Your task to perform on an android device: change notifications settings Image 0: 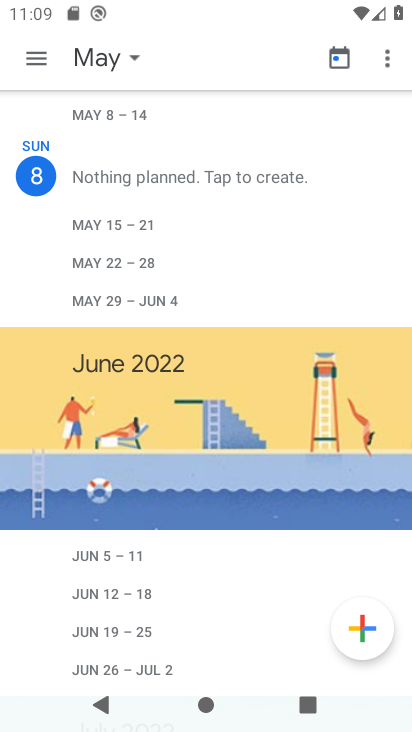
Step 0: press home button
Your task to perform on an android device: change notifications settings Image 1: 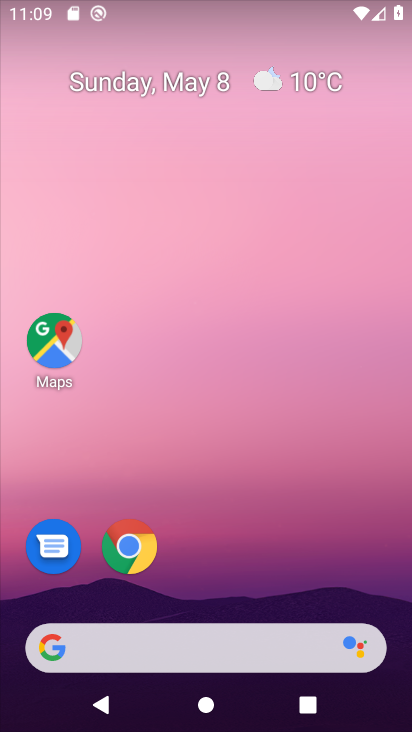
Step 1: drag from (255, 557) to (312, 280)
Your task to perform on an android device: change notifications settings Image 2: 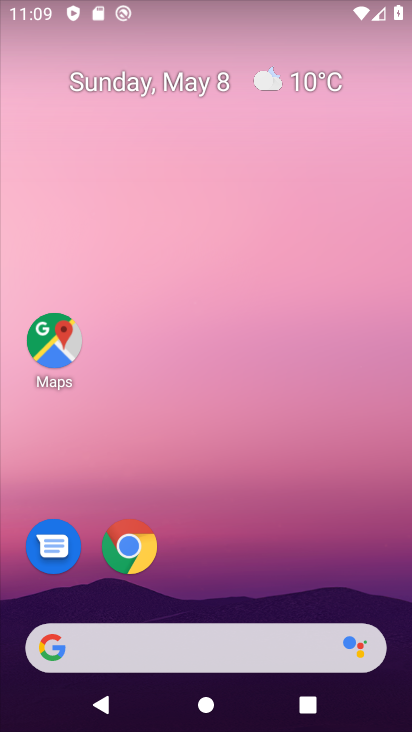
Step 2: drag from (238, 614) to (302, 365)
Your task to perform on an android device: change notifications settings Image 3: 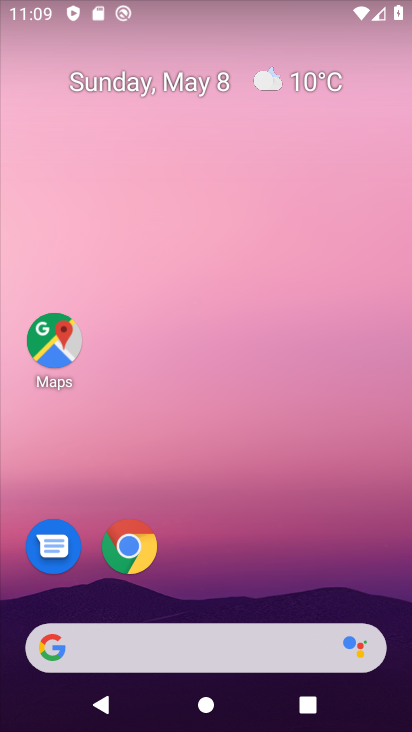
Step 3: drag from (207, 608) to (336, 215)
Your task to perform on an android device: change notifications settings Image 4: 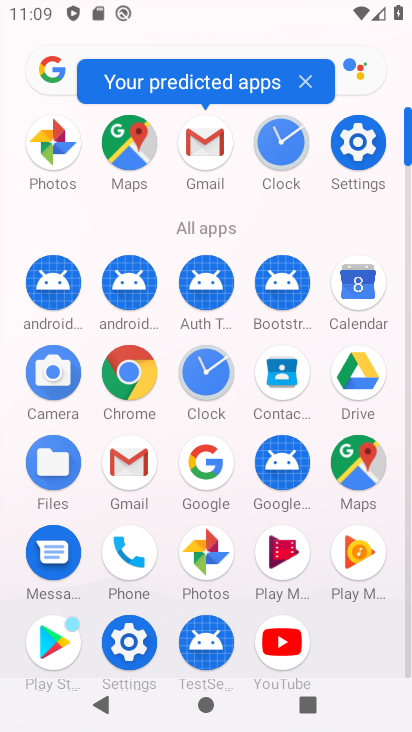
Step 4: click (365, 139)
Your task to perform on an android device: change notifications settings Image 5: 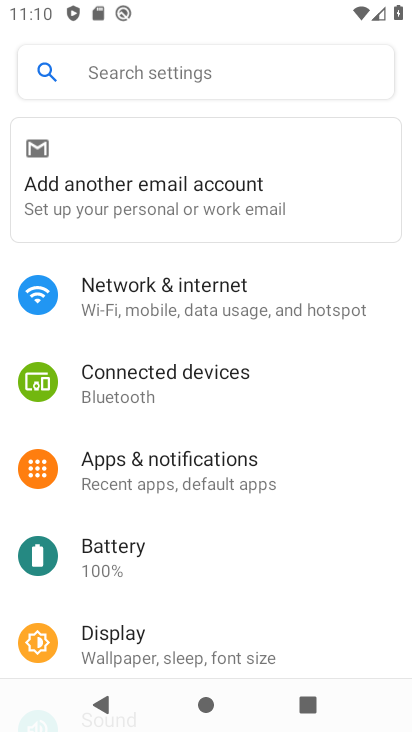
Step 5: click (269, 487)
Your task to perform on an android device: change notifications settings Image 6: 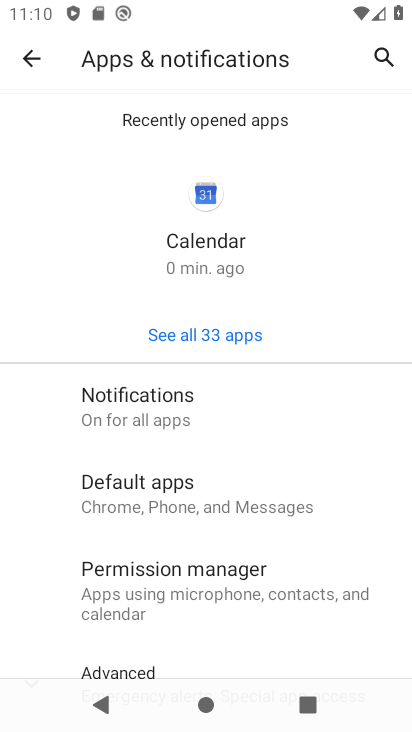
Step 6: click (246, 423)
Your task to perform on an android device: change notifications settings Image 7: 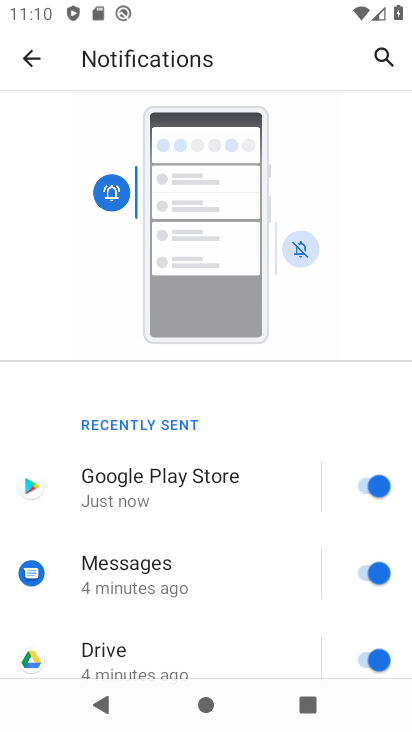
Step 7: click (367, 488)
Your task to perform on an android device: change notifications settings Image 8: 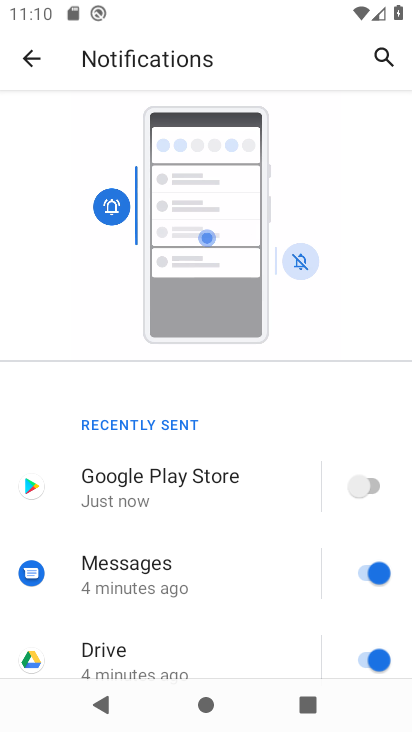
Step 8: drag from (235, 662) to (317, 323)
Your task to perform on an android device: change notifications settings Image 9: 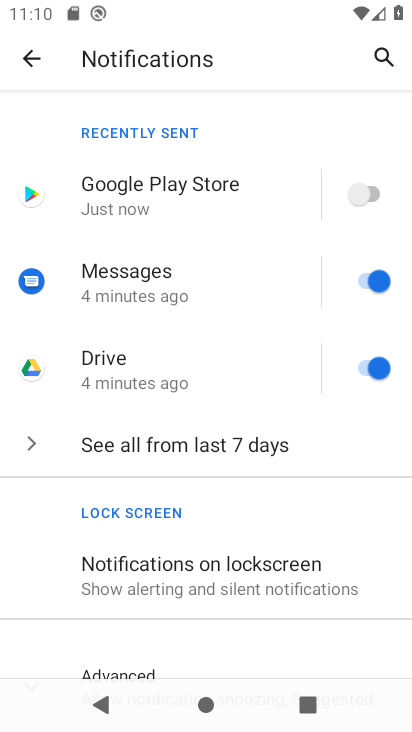
Step 9: click (363, 361)
Your task to perform on an android device: change notifications settings Image 10: 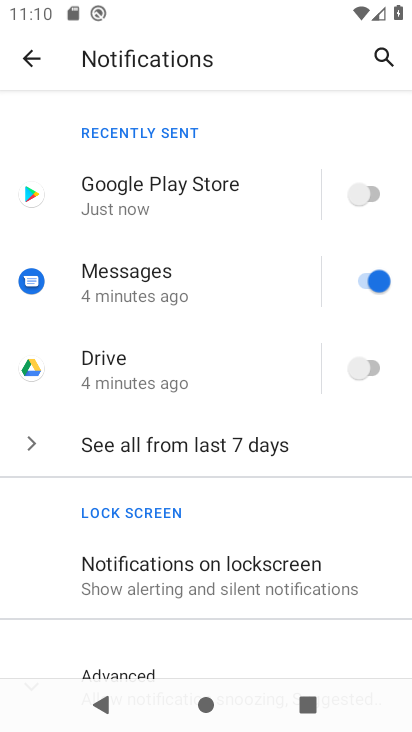
Step 10: click (302, 560)
Your task to perform on an android device: change notifications settings Image 11: 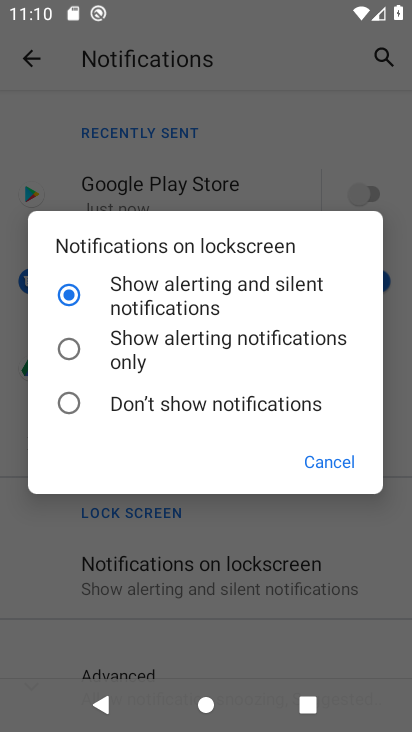
Step 11: click (177, 341)
Your task to perform on an android device: change notifications settings Image 12: 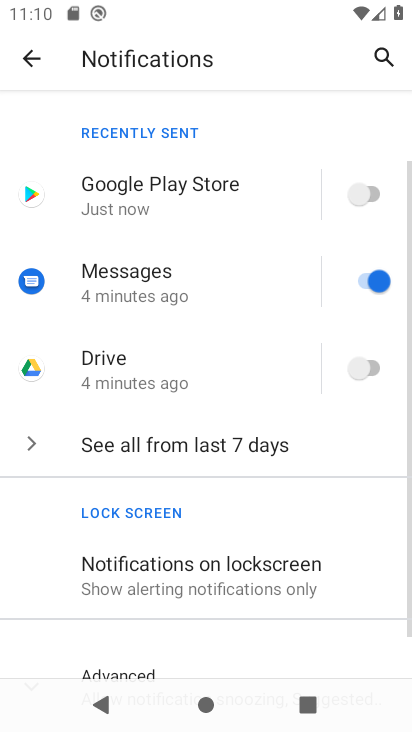
Step 12: drag from (266, 645) to (311, 424)
Your task to perform on an android device: change notifications settings Image 13: 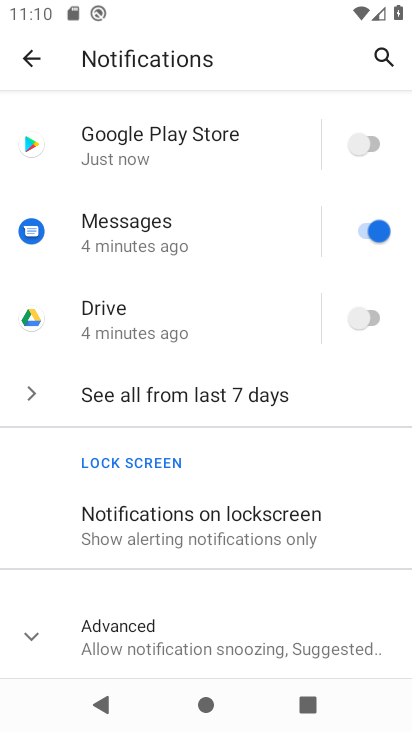
Step 13: click (176, 627)
Your task to perform on an android device: change notifications settings Image 14: 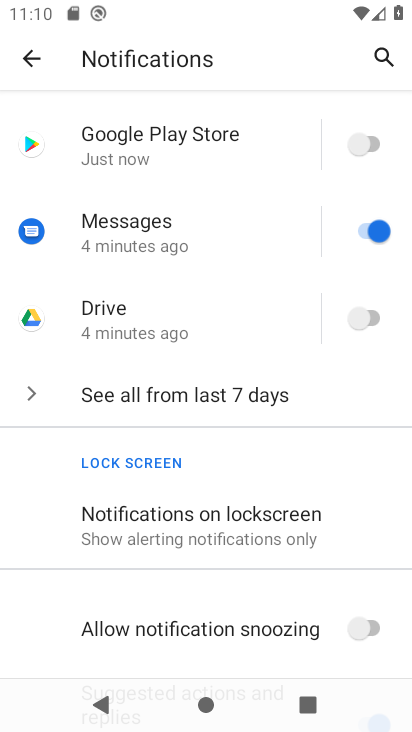
Step 14: drag from (295, 614) to (369, 426)
Your task to perform on an android device: change notifications settings Image 15: 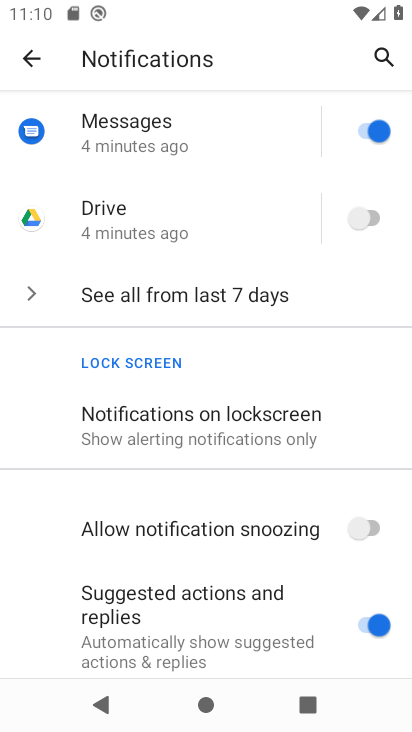
Step 15: click (373, 520)
Your task to perform on an android device: change notifications settings Image 16: 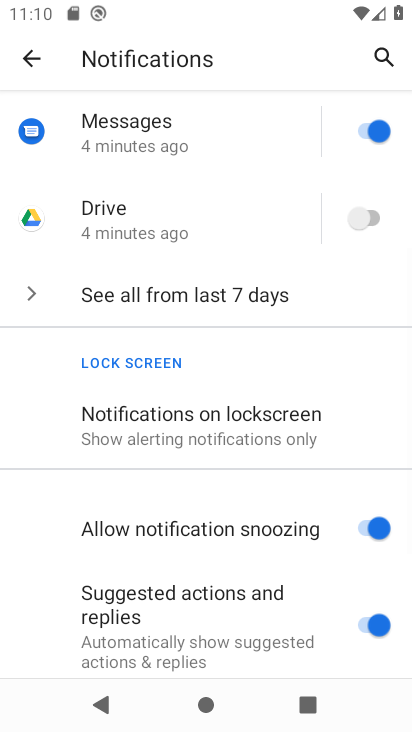
Step 16: drag from (209, 631) to (293, 407)
Your task to perform on an android device: change notifications settings Image 17: 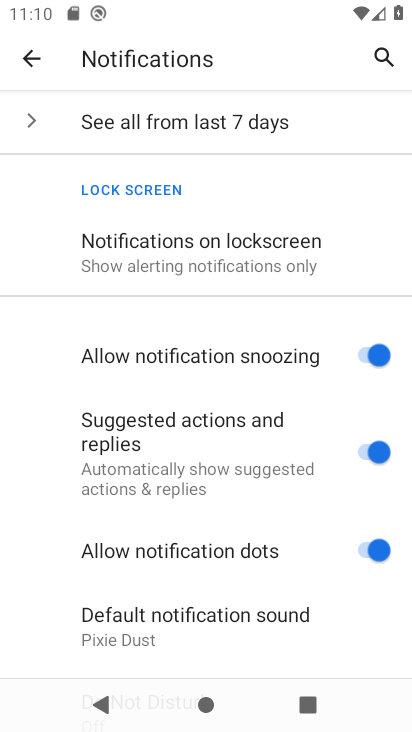
Step 17: click (369, 455)
Your task to perform on an android device: change notifications settings Image 18: 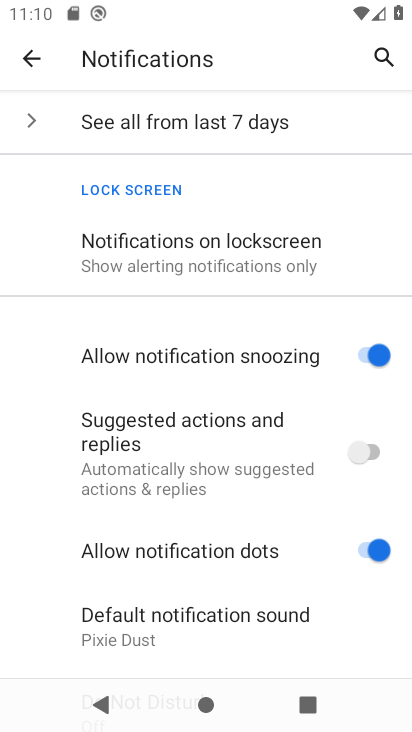
Step 18: click (366, 543)
Your task to perform on an android device: change notifications settings Image 19: 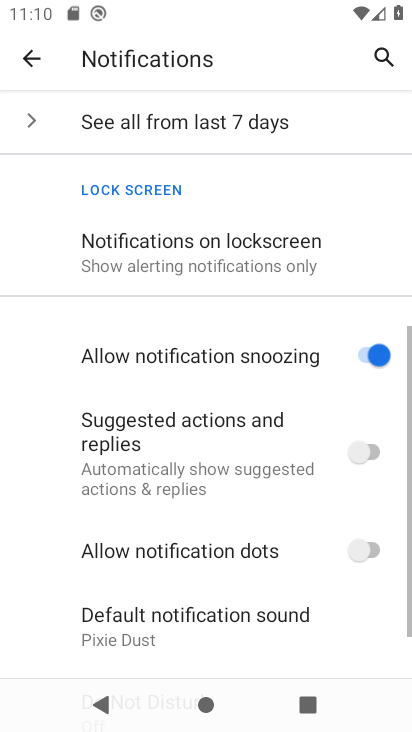
Step 19: click (291, 622)
Your task to perform on an android device: change notifications settings Image 20: 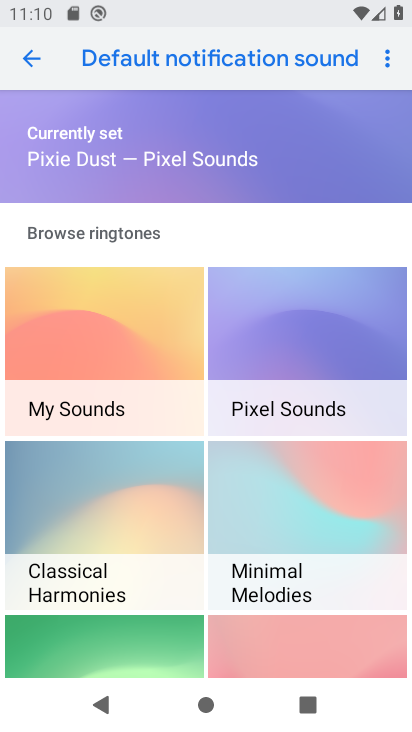
Step 20: click (134, 538)
Your task to perform on an android device: change notifications settings Image 21: 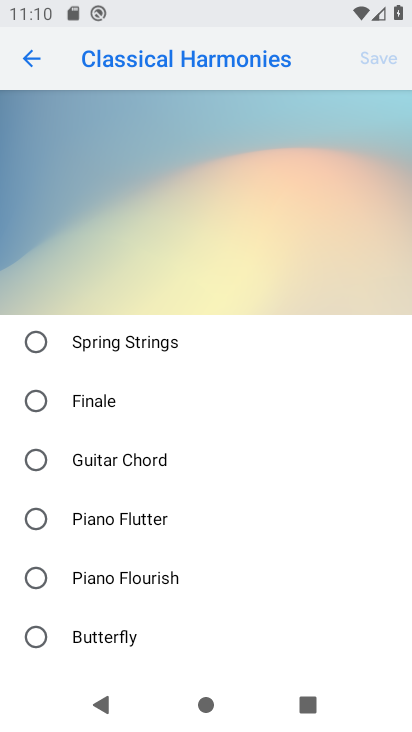
Step 21: click (149, 581)
Your task to perform on an android device: change notifications settings Image 22: 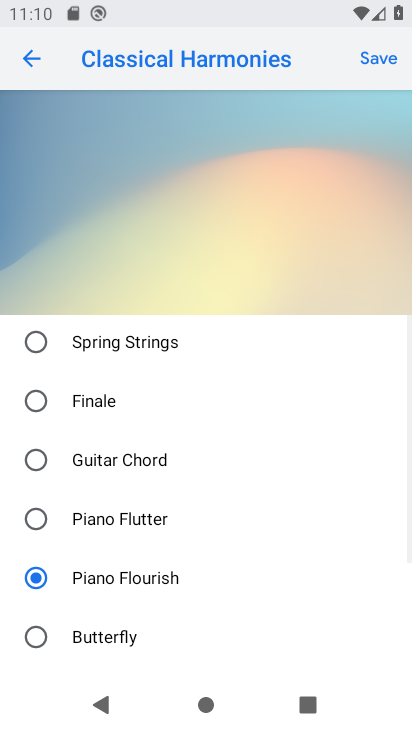
Step 22: click (389, 57)
Your task to perform on an android device: change notifications settings Image 23: 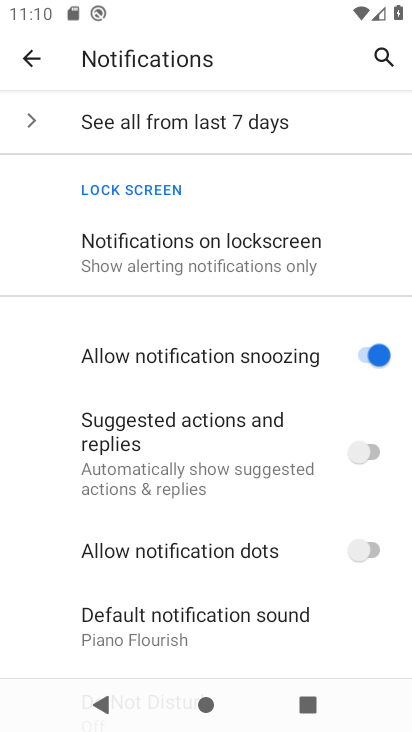
Step 23: task complete